Your task to perform on an android device: turn off translation in the chrome app Image 0: 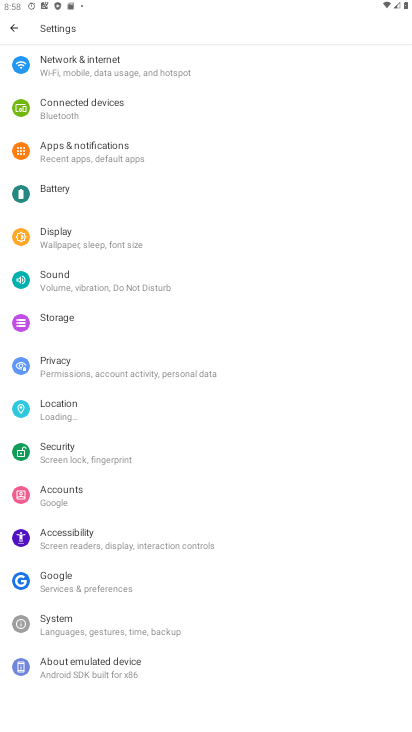
Step 0: drag from (358, 681) to (182, 49)
Your task to perform on an android device: turn off translation in the chrome app Image 1: 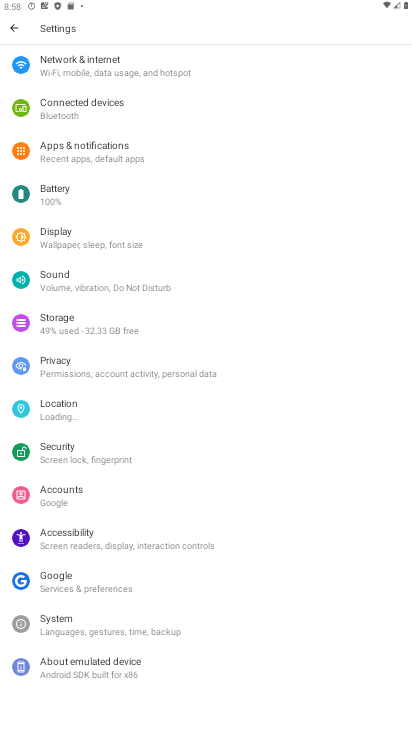
Step 1: press home button
Your task to perform on an android device: turn off translation in the chrome app Image 2: 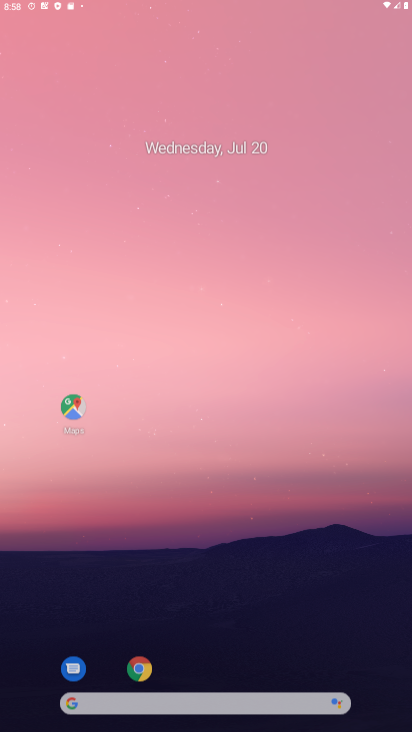
Step 2: drag from (380, 666) to (242, 15)
Your task to perform on an android device: turn off translation in the chrome app Image 3: 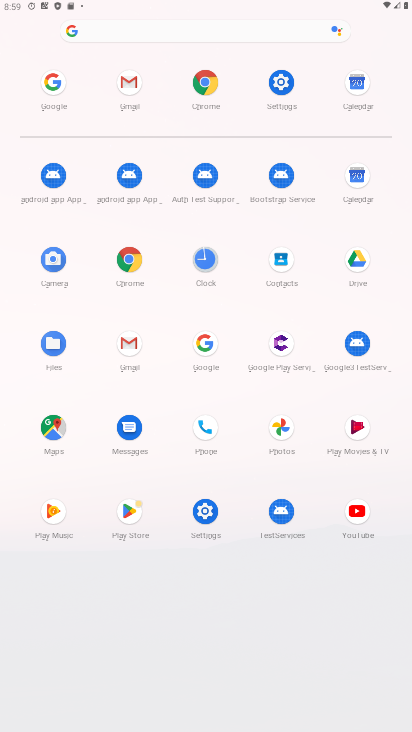
Step 3: click (133, 273)
Your task to perform on an android device: turn off translation in the chrome app Image 4: 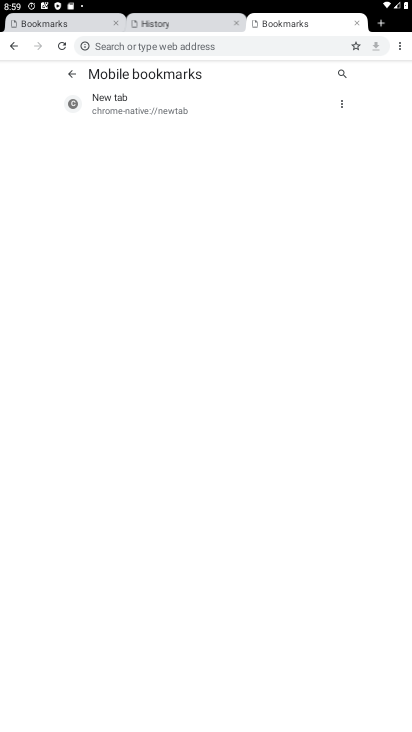
Step 4: click (395, 44)
Your task to perform on an android device: turn off translation in the chrome app Image 5: 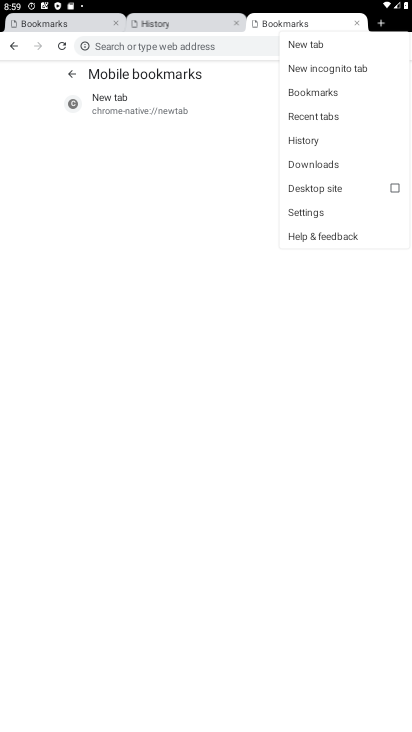
Step 5: click (325, 215)
Your task to perform on an android device: turn off translation in the chrome app Image 6: 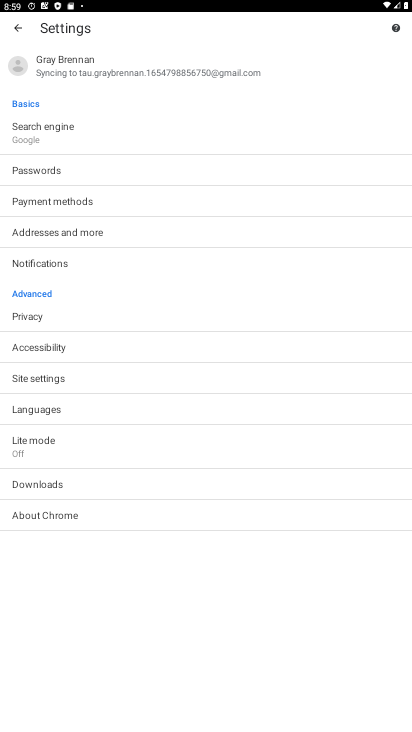
Step 6: click (100, 411)
Your task to perform on an android device: turn off translation in the chrome app Image 7: 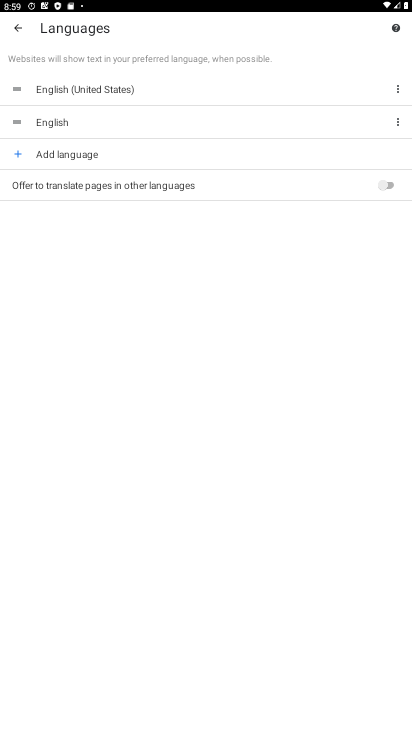
Step 7: task complete